Your task to perform on an android device: Do I have any events this weekend? Image 0: 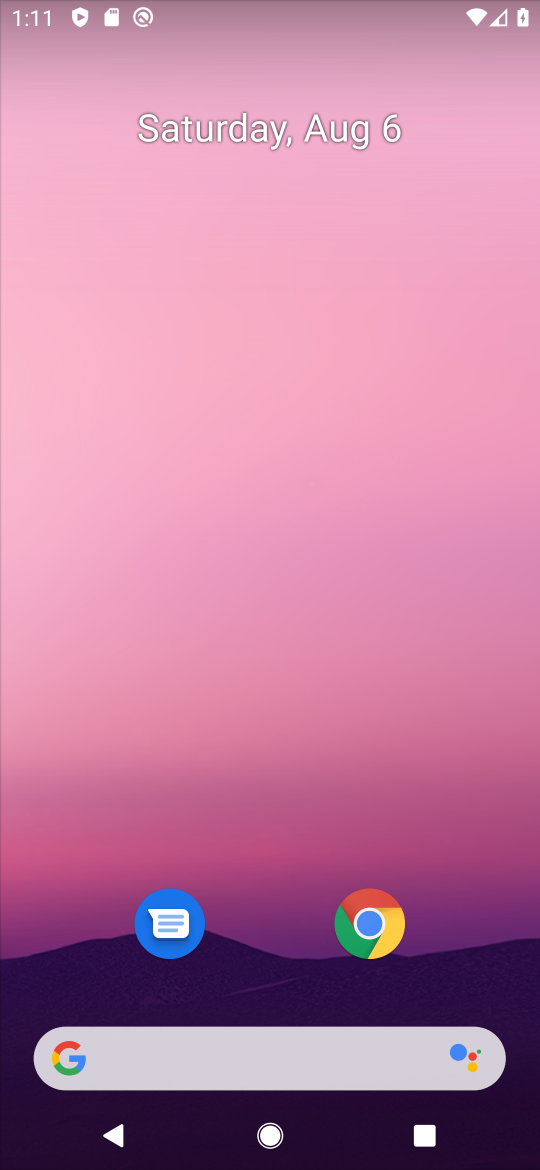
Step 0: drag from (239, 973) to (257, 348)
Your task to perform on an android device: Do I have any events this weekend? Image 1: 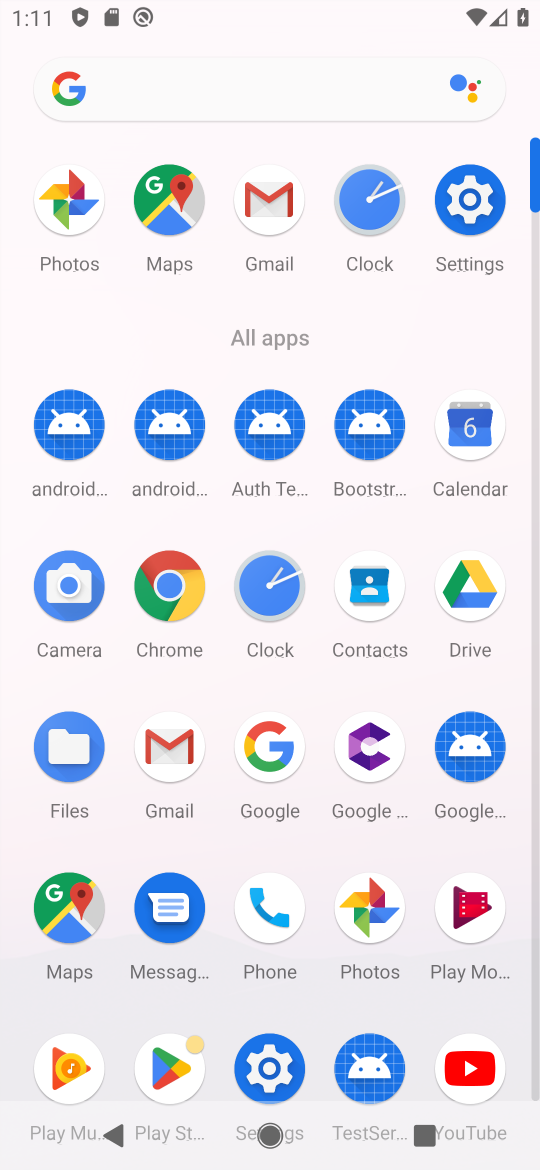
Step 1: click (472, 451)
Your task to perform on an android device: Do I have any events this weekend? Image 2: 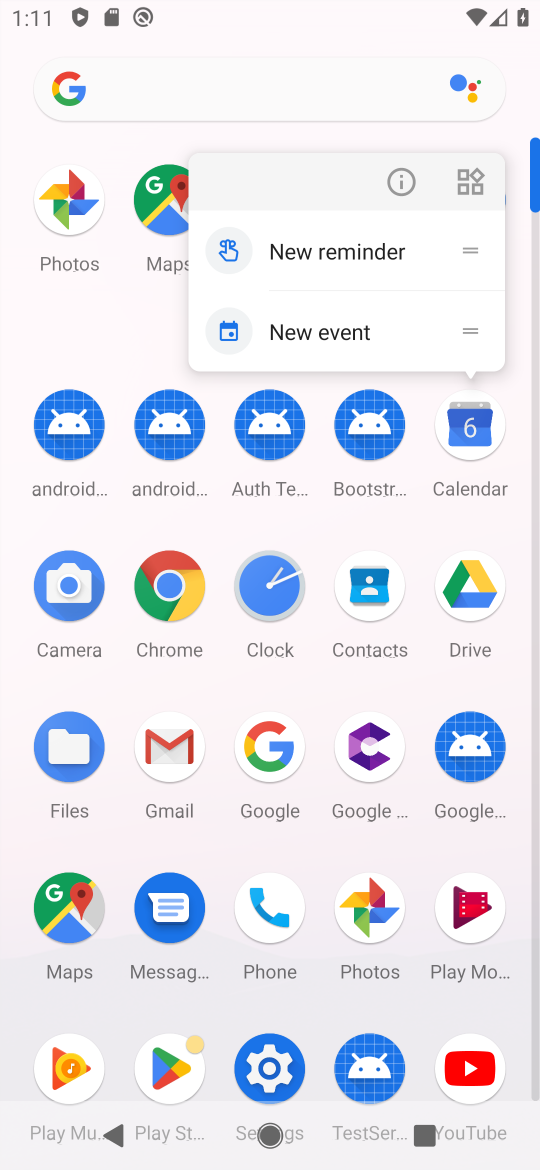
Step 2: click (407, 174)
Your task to perform on an android device: Do I have any events this weekend? Image 3: 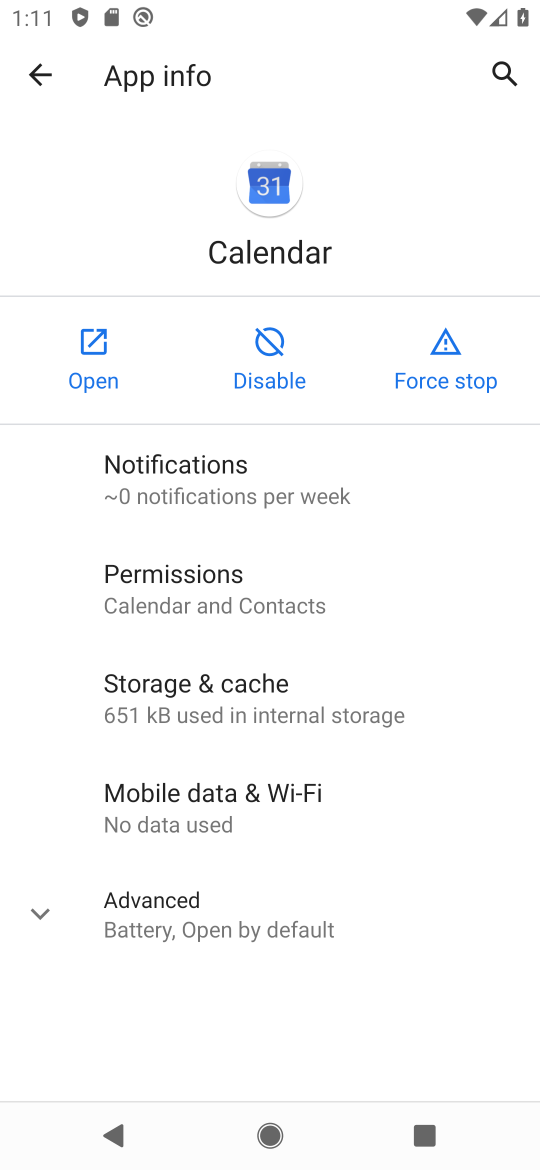
Step 3: click (97, 342)
Your task to perform on an android device: Do I have any events this weekend? Image 4: 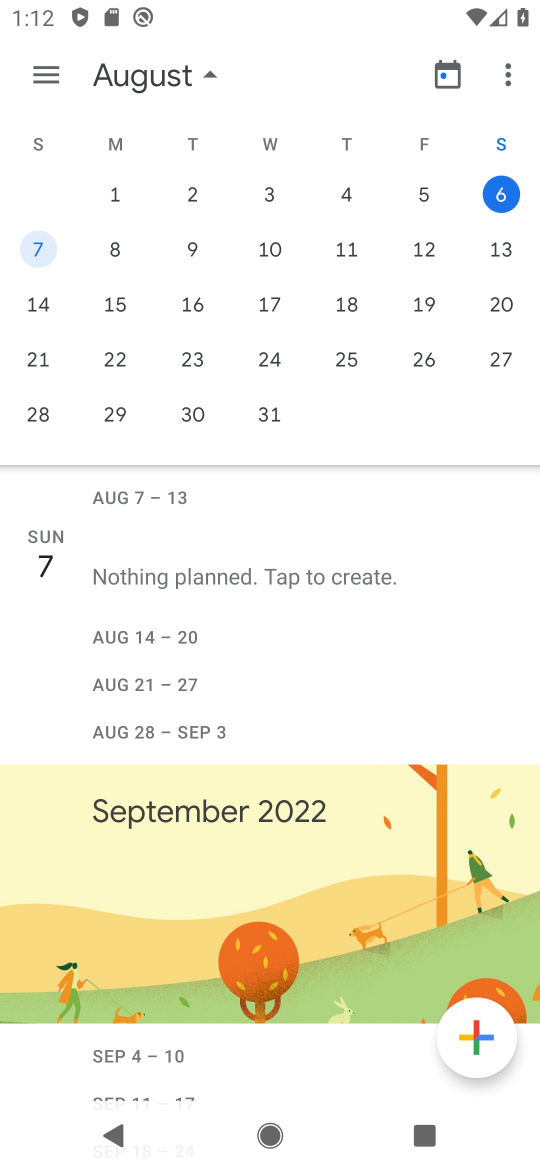
Step 4: click (32, 247)
Your task to perform on an android device: Do I have any events this weekend? Image 5: 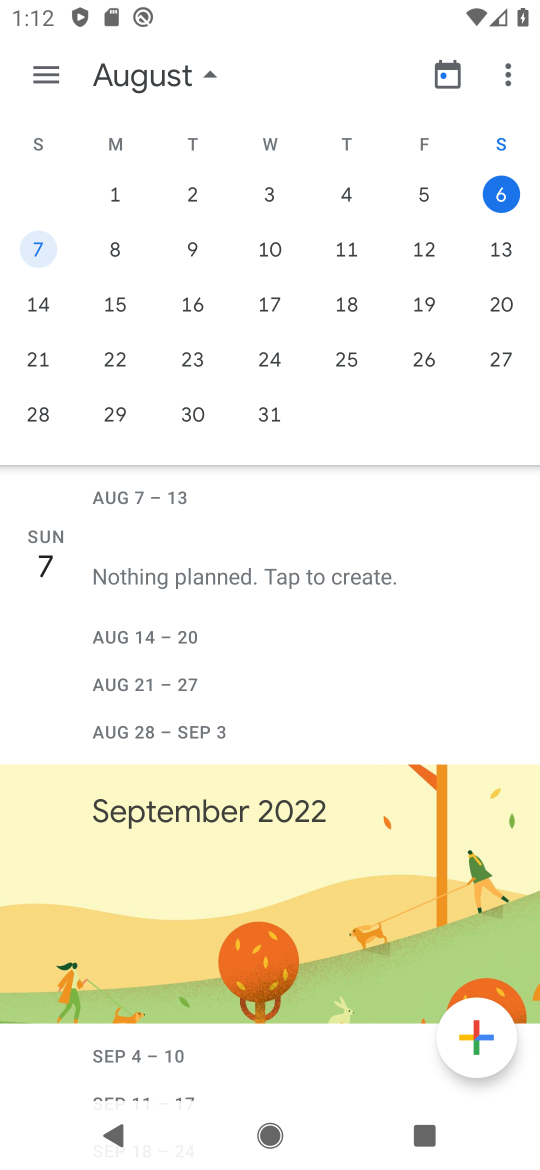
Step 5: task complete